Your task to perform on an android device: toggle sleep mode Image 0: 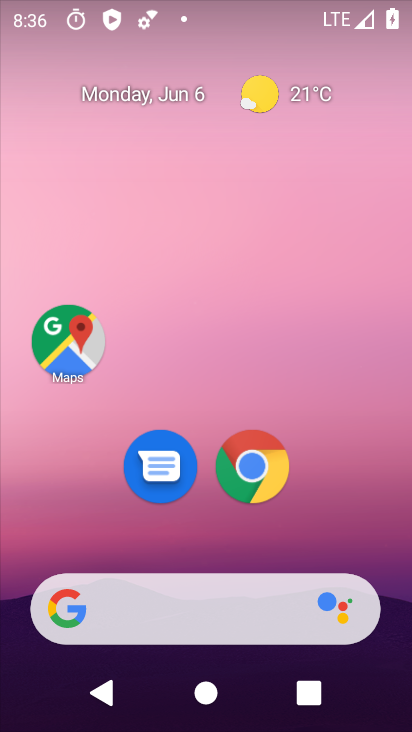
Step 0: drag from (188, 545) to (164, 10)
Your task to perform on an android device: toggle sleep mode Image 1: 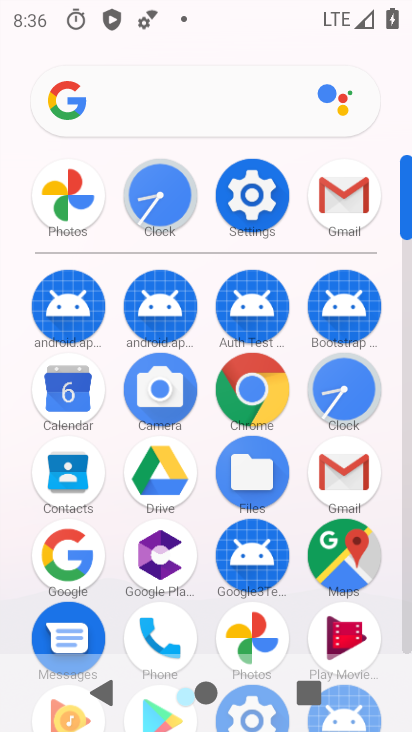
Step 1: click (253, 214)
Your task to perform on an android device: toggle sleep mode Image 2: 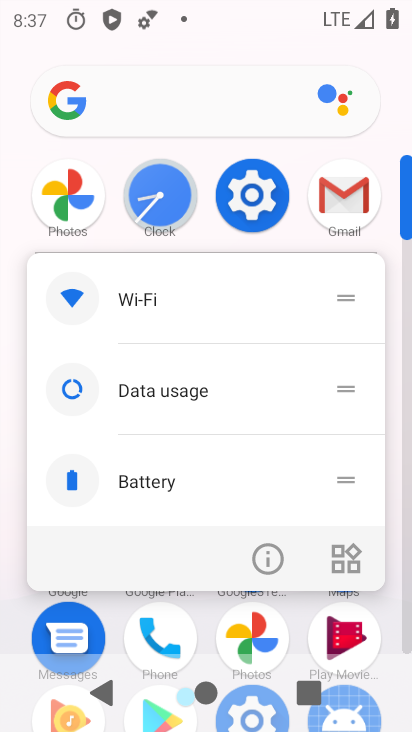
Step 2: click (254, 566)
Your task to perform on an android device: toggle sleep mode Image 3: 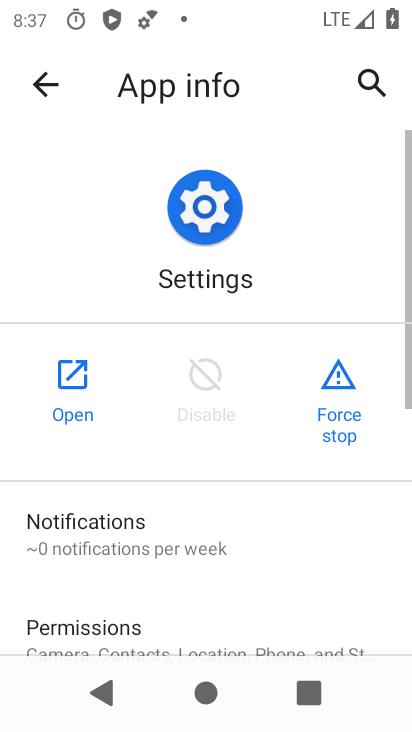
Step 3: click (88, 386)
Your task to perform on an android device: toggle sleep mode Image 4: 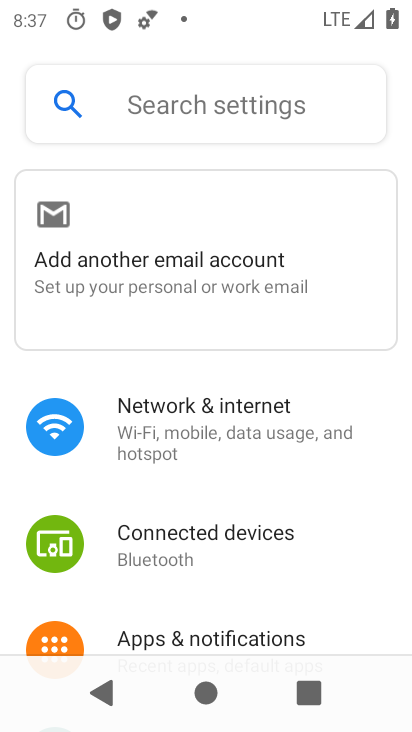
Step 4: drag from (219, 548) to (282, 192)
Your task to perform on an android device: toggle sleep mode Image 5: 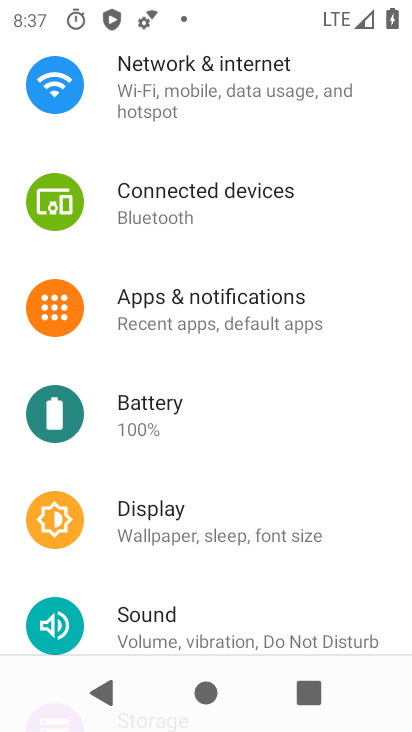
Step 5: click (169, 542)
Your task to perform on an android device: toggle sleep mode Image 6: 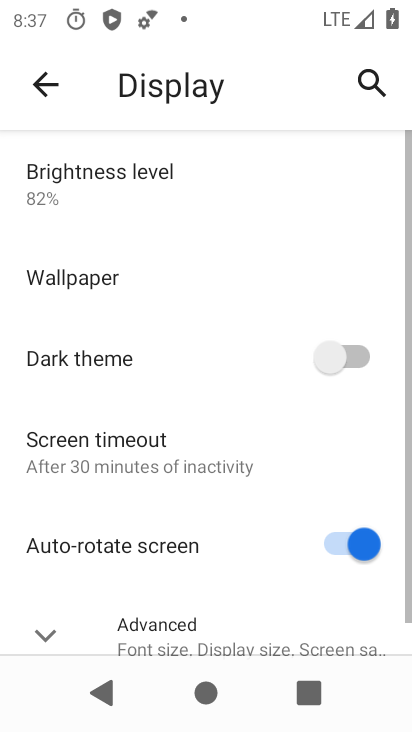
Step 6: drag from (210, 548) to (240, 243)
Your task to perform on an android device: toggle sleep mode Image 7: 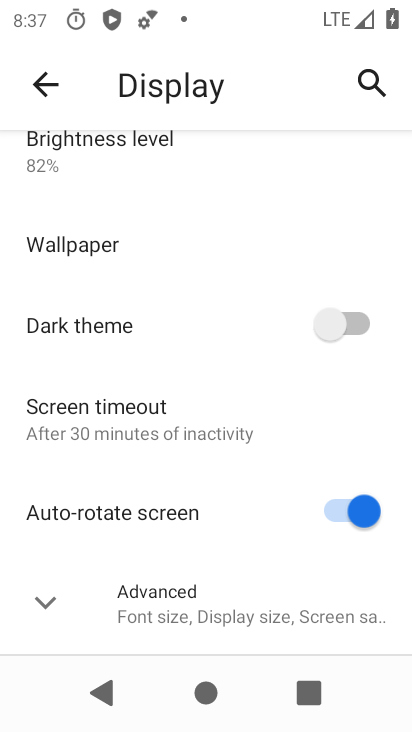
Step 7: click (196, 429)
Your task to perform on an android device: toggle sleep mode Image 8: 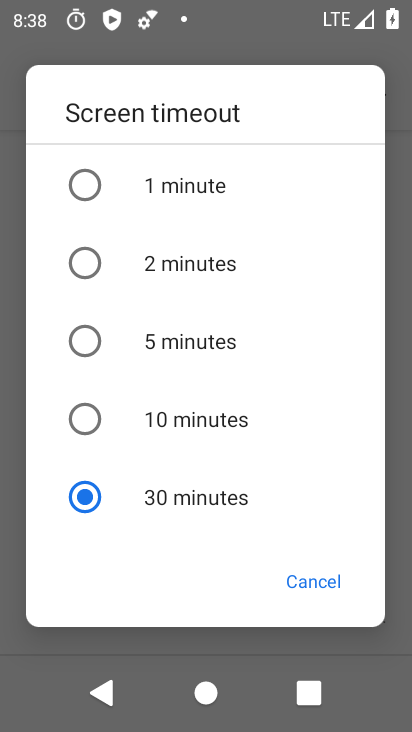
Step 8: task complete